Your task to perform on an android device: open chrome privacy settings Image 0: 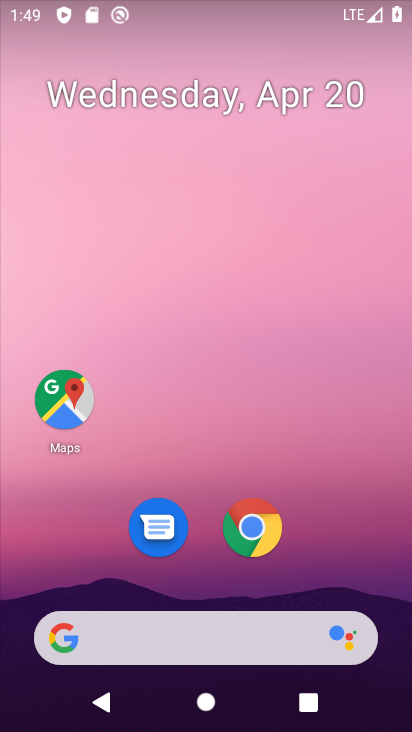
Step 0: click (259, 519)
Your task to perform on an android device: open chrome privacy settings Image 1: 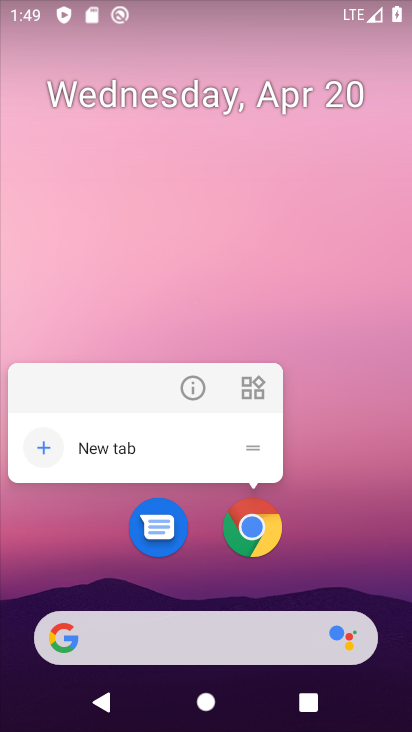
Step 1: click (127, 451)
Your task to perform on an android device: open chrome privacy settings Image 2: 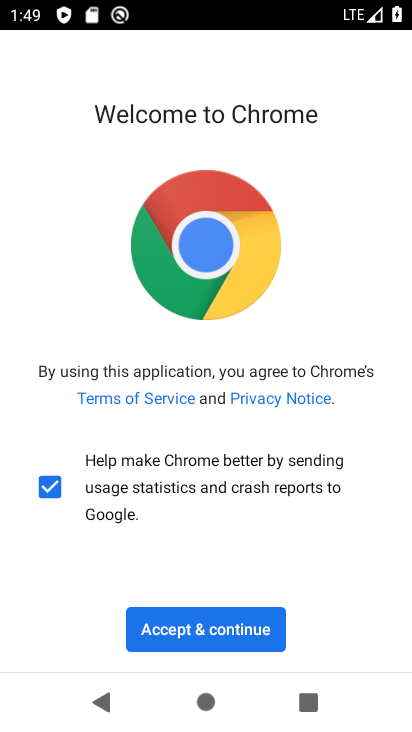
Step 2: click (251, 615)
Your task to perform on an android device: open chrome privacy settings Image 3: 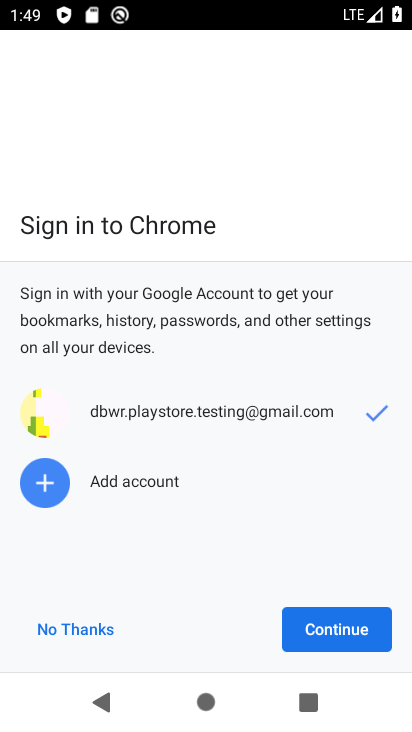
Step 3: click (313, 624)
Your task to perform on an android device: open chrome privacy settings Image 4: 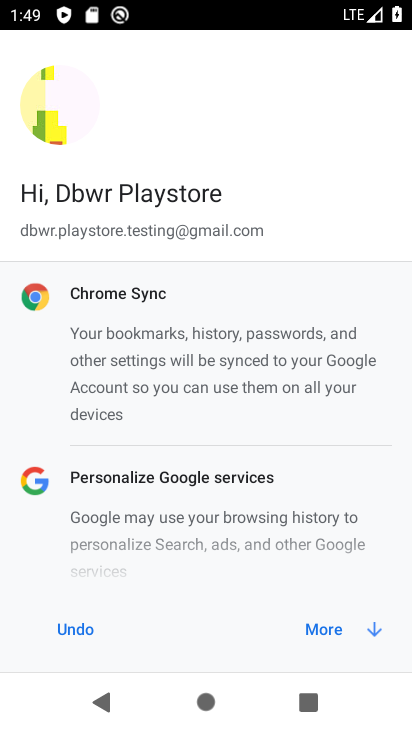
Step 4: click (358, 612)
Your task to perform on an android device: open chrome privacy settings Image 5: 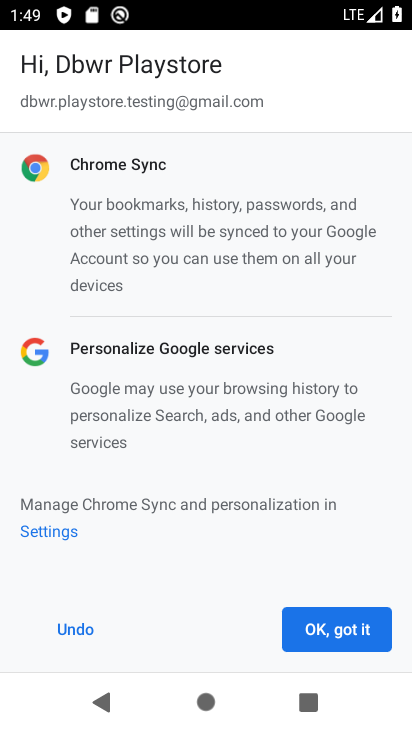
Step 5: click (358, 612)
Your task to perform on an android device: open chrome privacy settings Image 6: 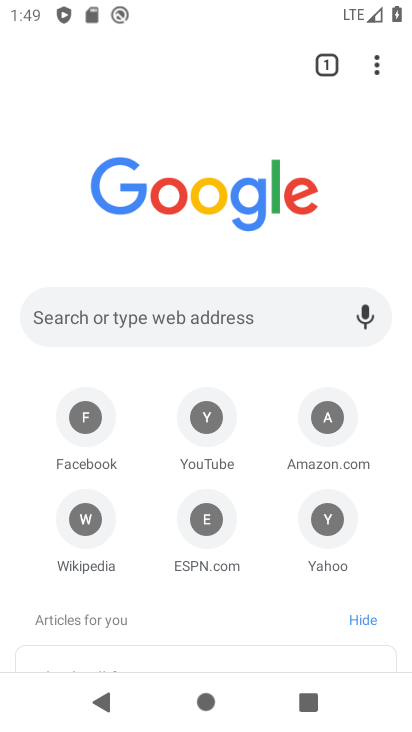
Step 6: click (378, 73)
Your task to perform on an android device: open chrome privacy settings Image 7: 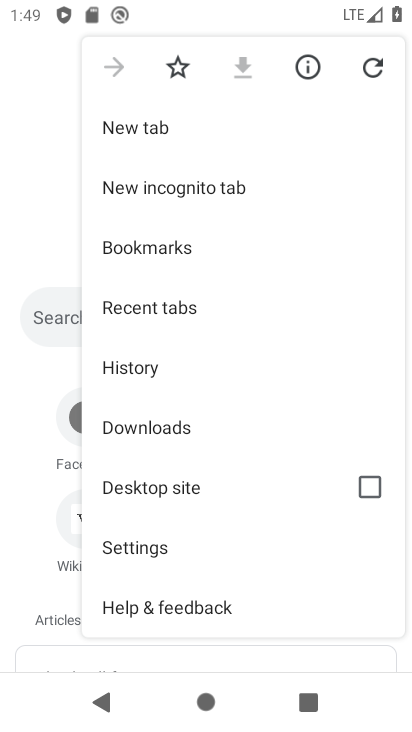
Step 7: drag from (161, 579) to (201, 225)
Your task to perform on an android device: open chrome privacy settings Image 8: 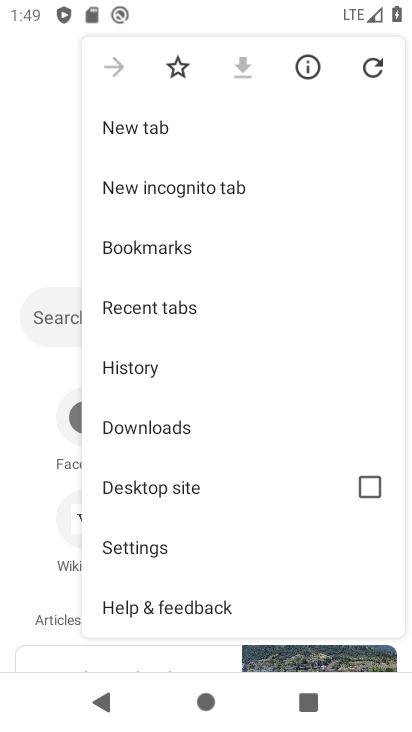
Step 8: click (191, 554)
Your task to perform on an android device: open chrome privacy settings Image 9: 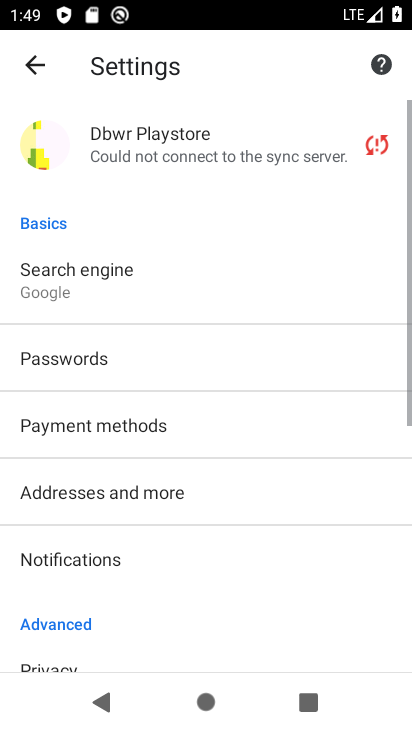
Step 9: drag from (191, 554) to (131, 183)
Your task to perform on an android device: open chrome privacy settings Image 10: 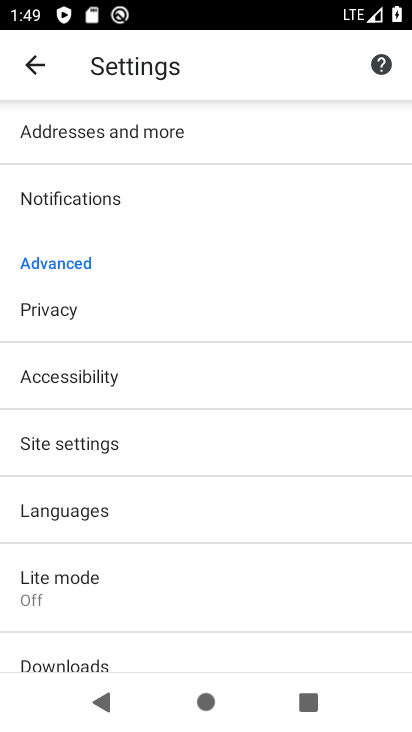
Step 10: drag from (180, 630) to (171, 242)
Your task to perform on an android device: open chrome privacy settings Image 11: 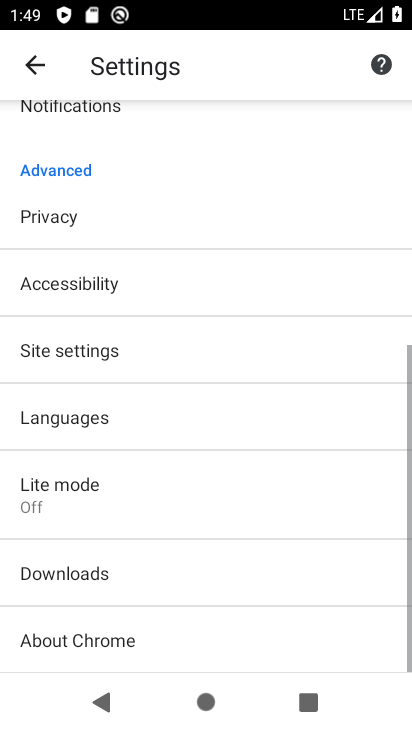
Step 11: click (81, 227)
Your task to perform on an android device: open chrome privacy settings Image 12: 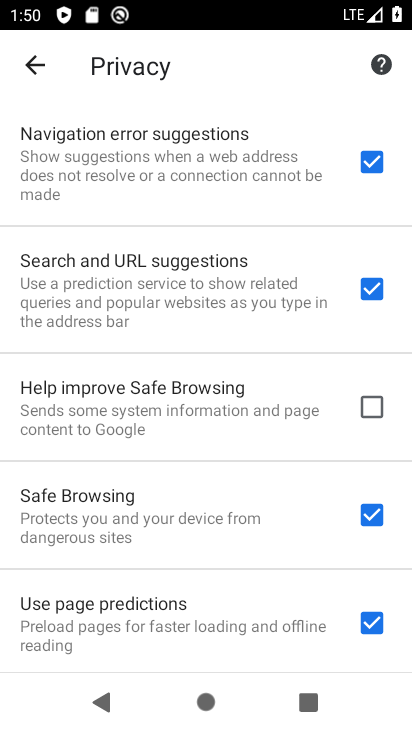
Step 12: press home button
Your task to perform on an android device: open chrome privacy settings Image 13: 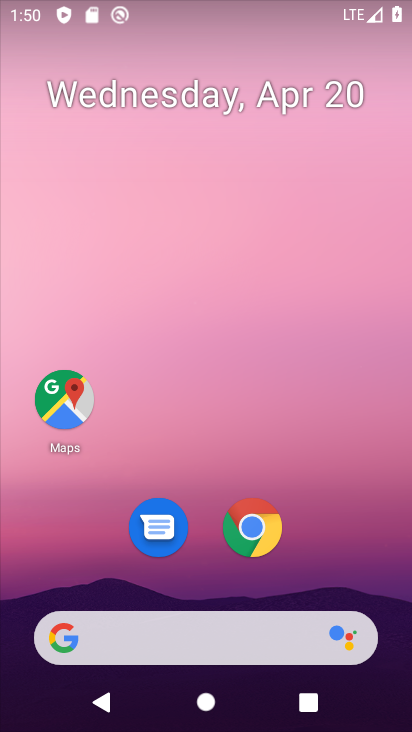
Step 13: click (251, 531)
Your task to perform on an android device: open chrome privacy settings Image 14: 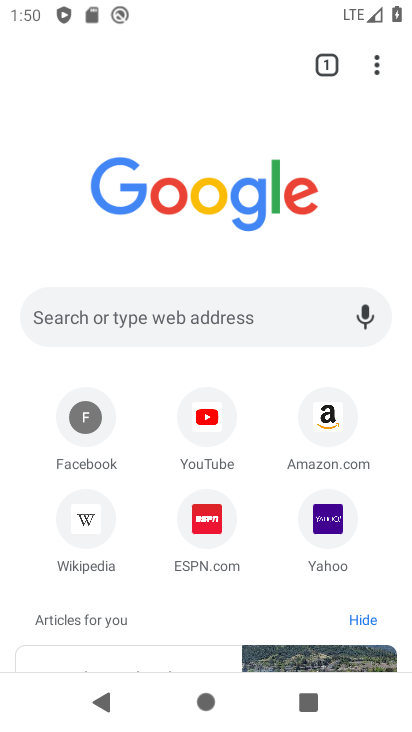
Step 14: click (381, 71)
Your task to perform on an android device: open chrome privacy settings Image 15: 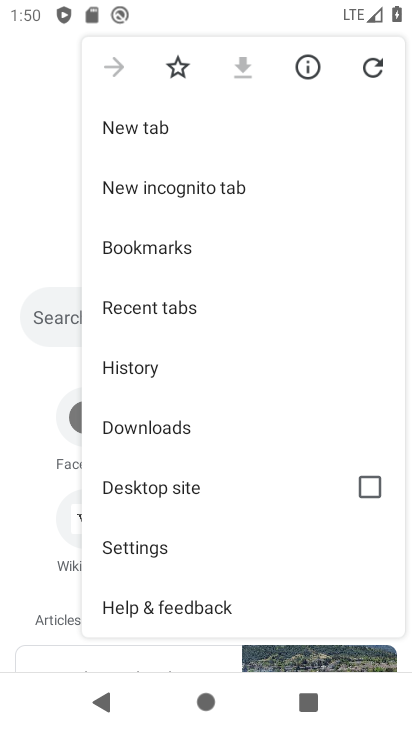
Step 15: drag from (138, 538) to (139, 97)
Your task to perform on an android device: open chrome privacy settings Image 16: 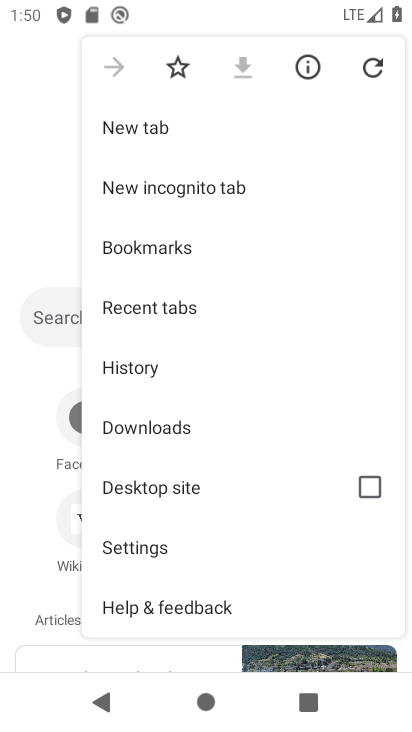
Step 16: click (180, 563)
Your task to perform on an android device: open chrome privacy settings Image 17: 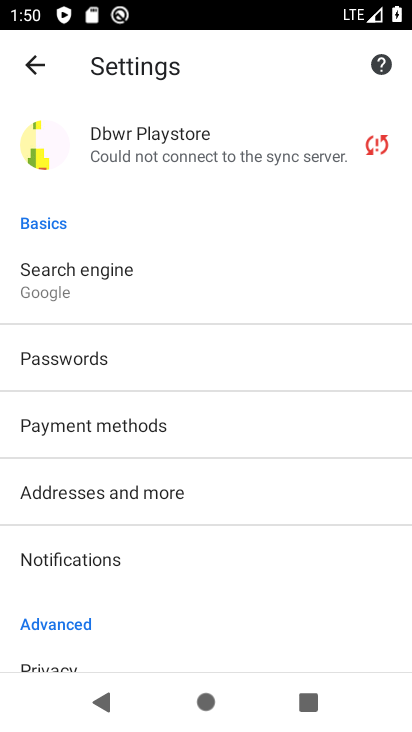
Step 17: drag from (150, 613) to (157, 128)
Your task to perform on an android device: open chrome privacy settings Image 18: 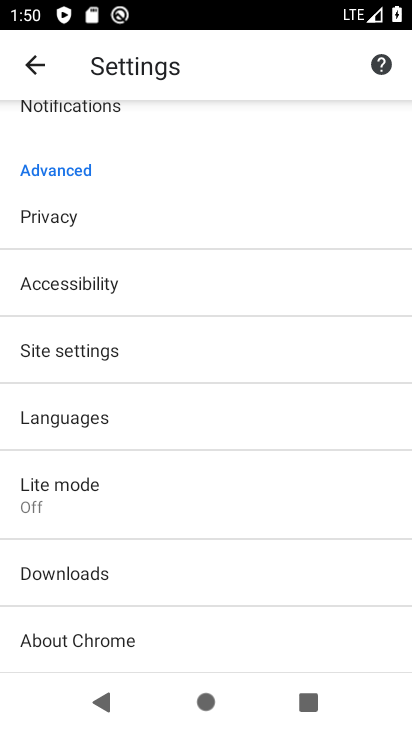
Step 18: click (112, 206)
Your task to perform on an android device: open chrome privacy settings Image 19: 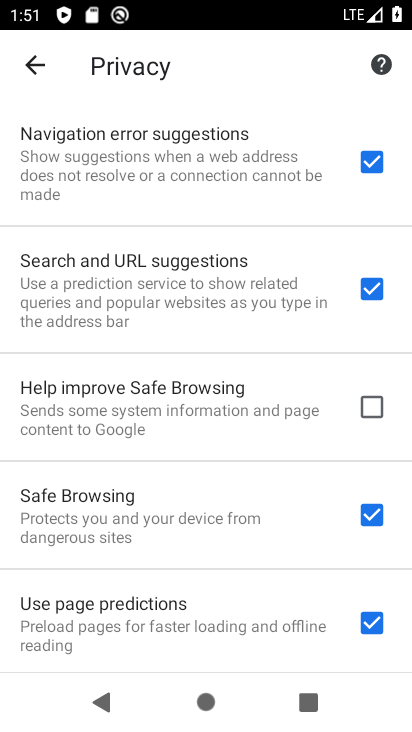
Step 19: task complete